Your task to perform on an android device: Go to location settings Image 0: 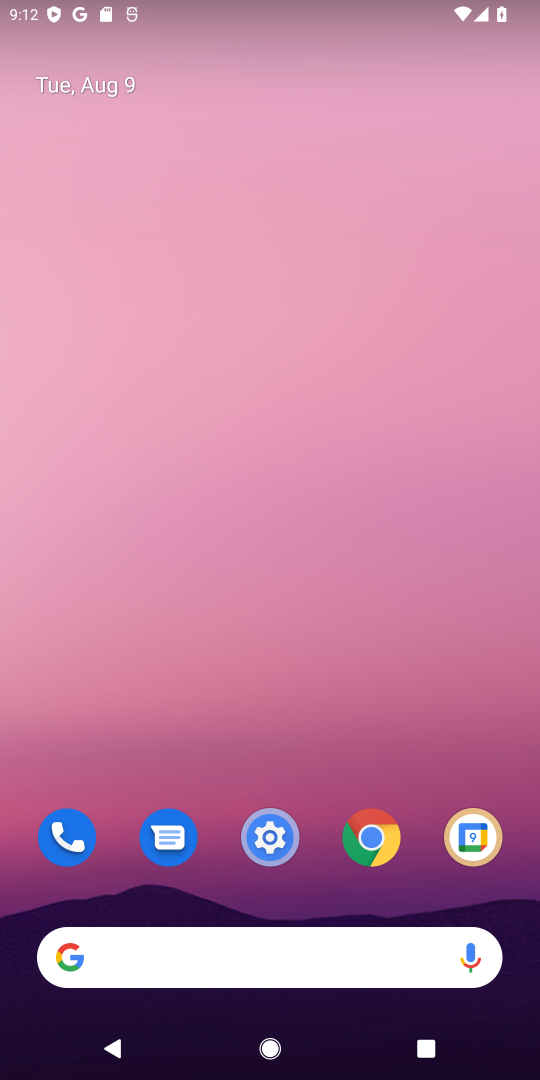
Step 0: drag from (338, 913) to (332, 223)
Your task to perform on an android device: Go to location settings Image 1: 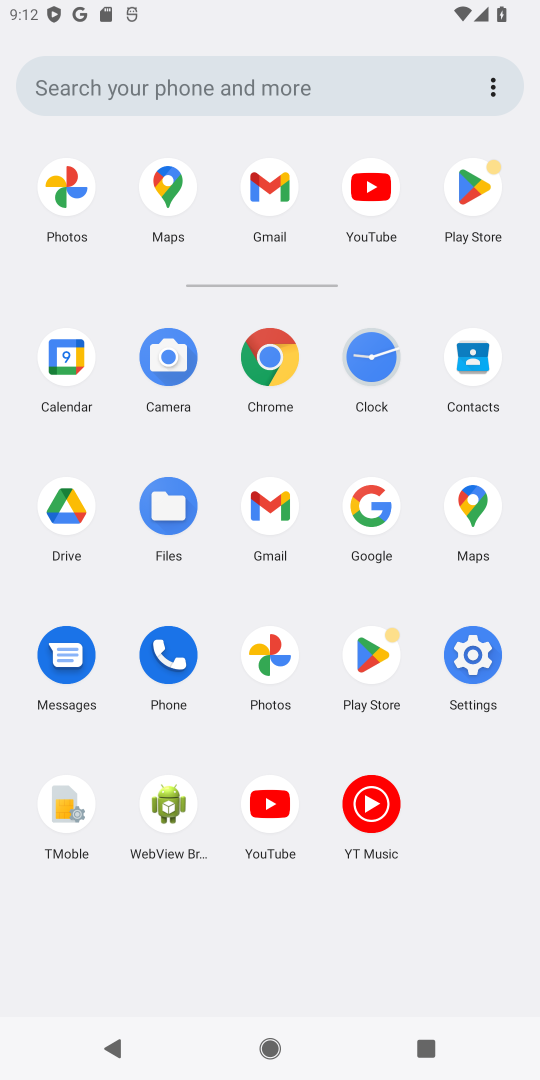
Step 1: click (478, 641)
Your task to perform on an android device: Go to location settings Image 2: 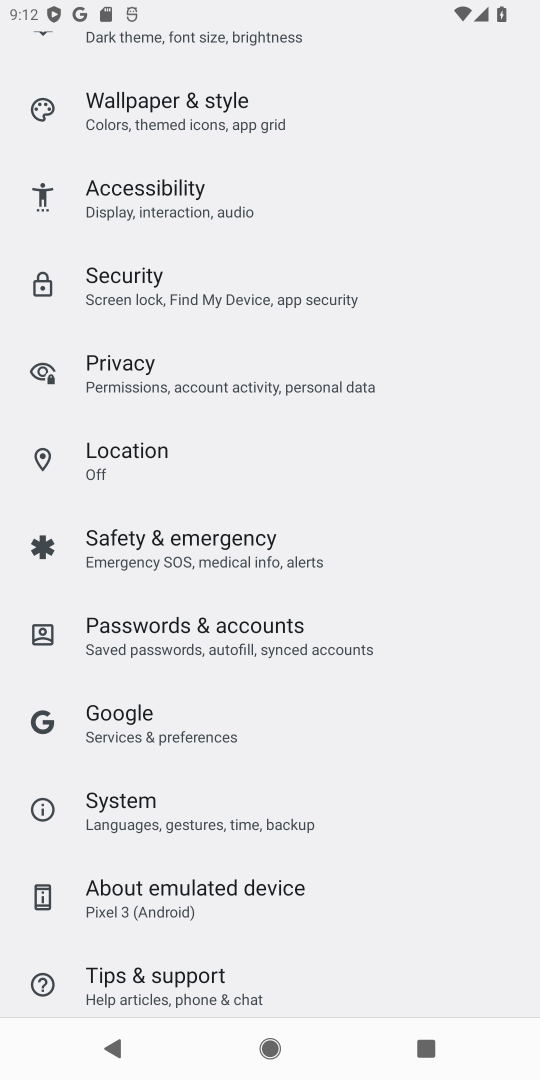
Step 2: click (113, 444)
Your task to perform on an android device: Go to location settings Image 3: 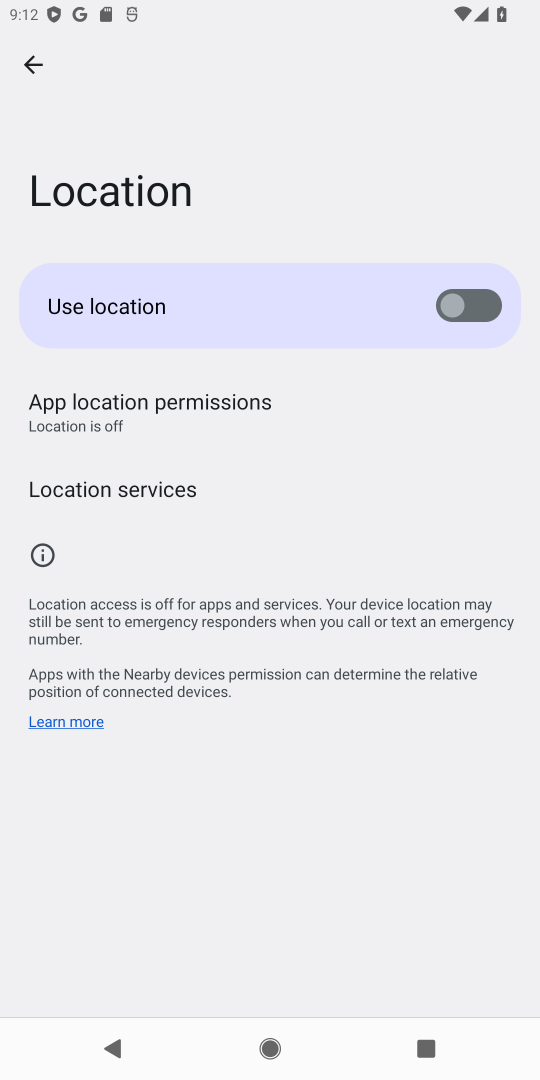
Step 3: task complete